Your task to perform on an android device: Open settings on Google Maps Image 0: 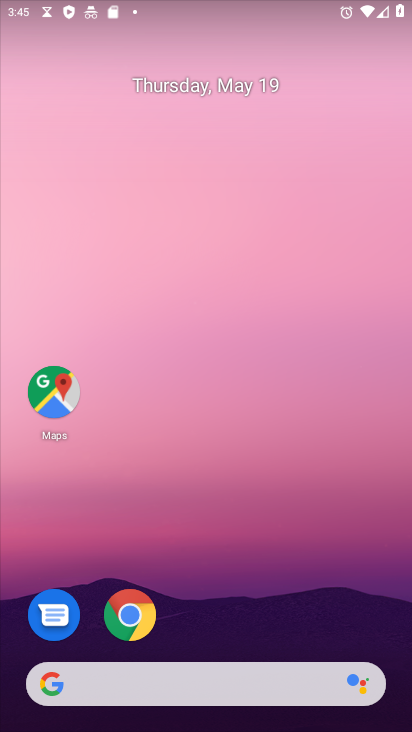
Step 0: drag from (297, 551) to (113, 10)
Your task to perform on an android device: Open settings on Google Maps Image 1: 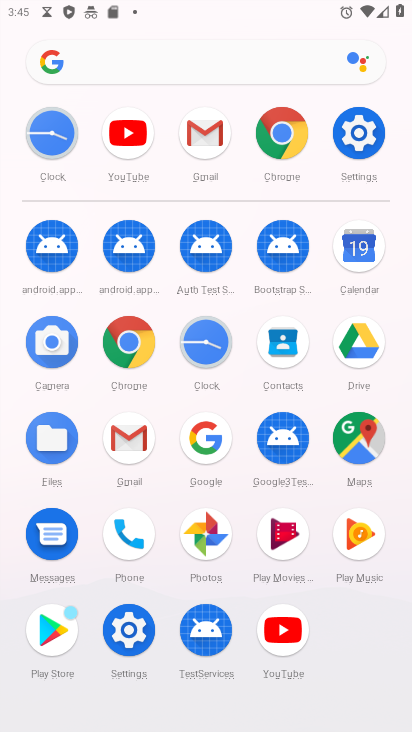
Step 1: click (189, 447)
Your task to perform on an android device: Open settings on Google Maps Image 2: 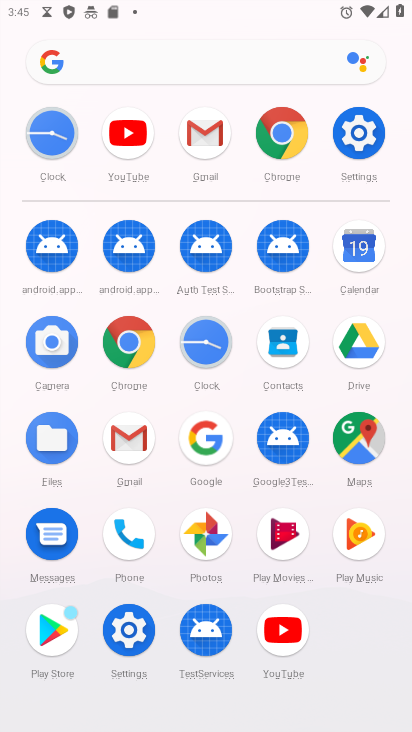
Step 2: click (189, 443)
Your task to perform on an android device: Open settings on Google Maps Image 3: 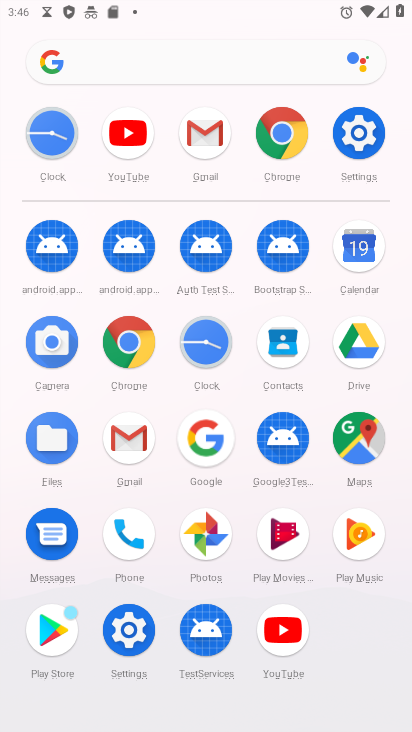
Step 3: click (213, 452)
Your task to perform on an android device: Open settings on Google Maps Image 4: 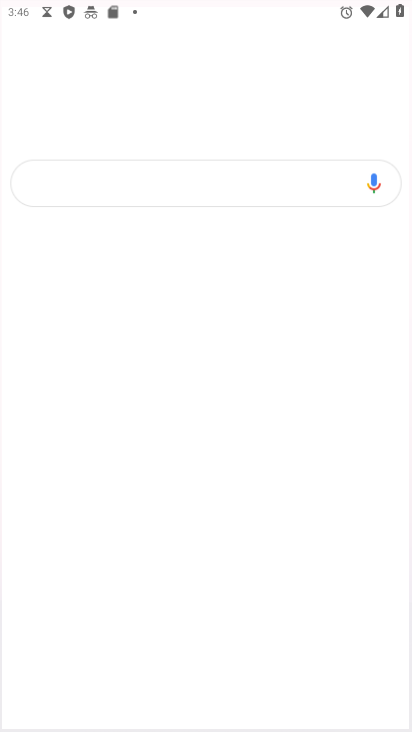
Step 4: click (201, 439)
Your task to perform on an android device: Open settings on Google Maps Image 5: 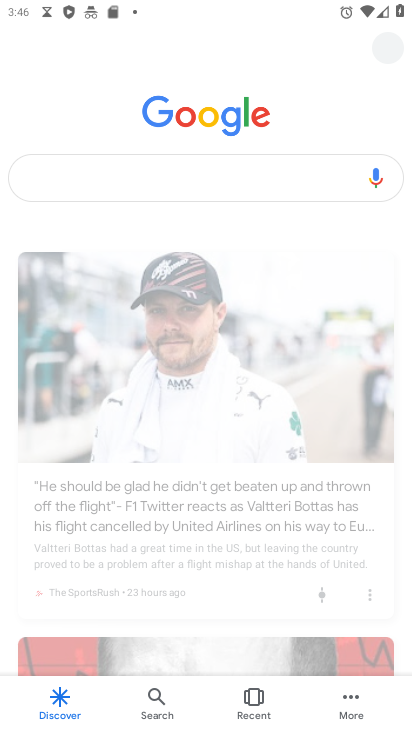
Step 5: click (201, 439)
Your task to perform on an android device: Open settings on Google Maps Image 6: 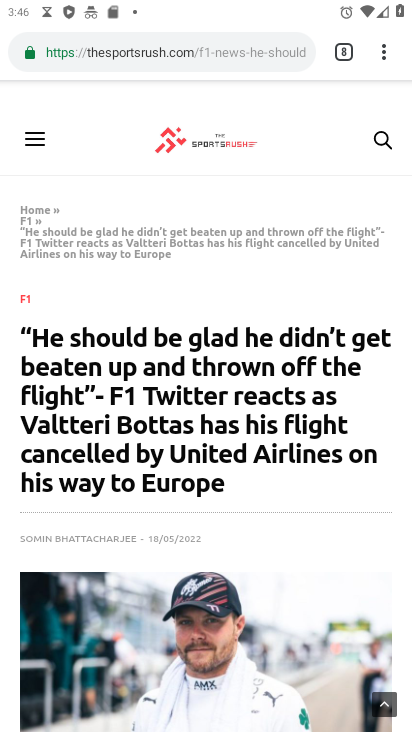
Step 6: click (164, 504)
Your task to perform on an android device: Open settings on Google Maps Image 7: 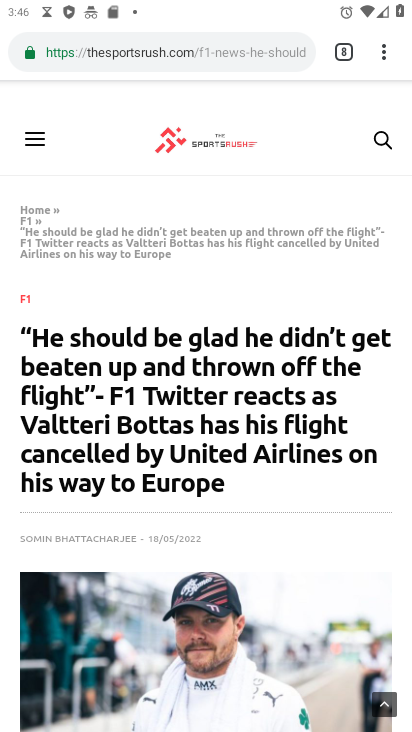
Step 7: task complete